Your task to perform on an android device: Open Reddit.com Image 0: 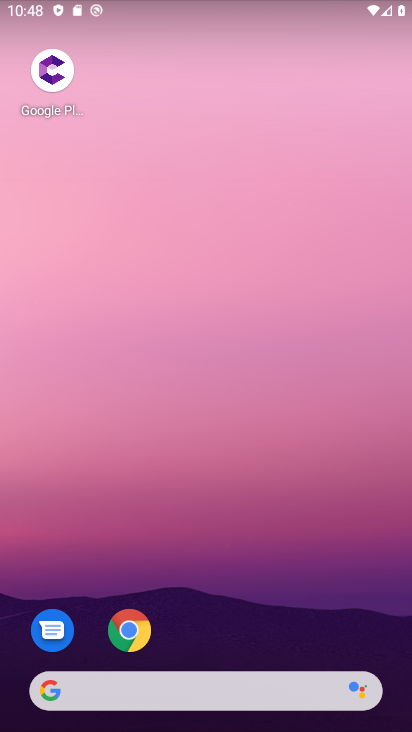
Step 0: click (124, 641)
Your task to perform on an android device: Open Reddit.com Image 1: 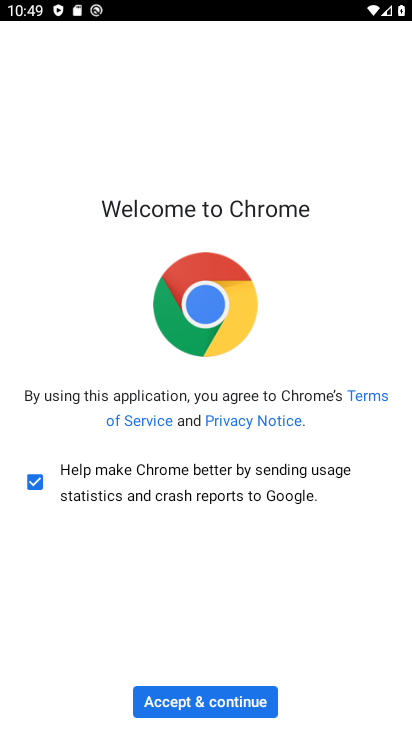
Step 1: click (184, 706)
Your task to perform on an android device: Open Reddit.com Image 2: 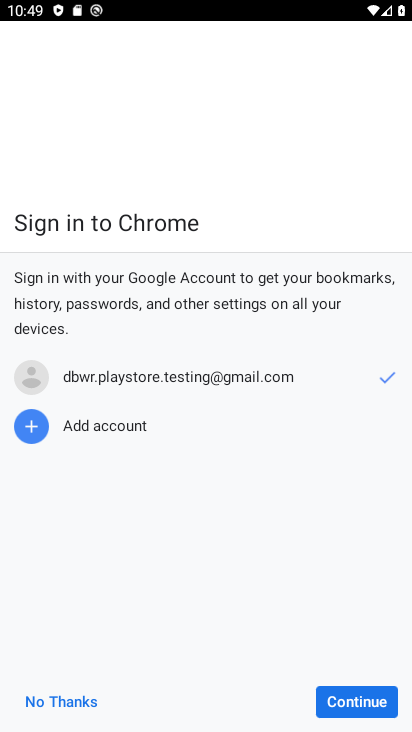
Step 2: click (64, 709)
Your task to perform on an android device: Open Reddit.com Image 3: 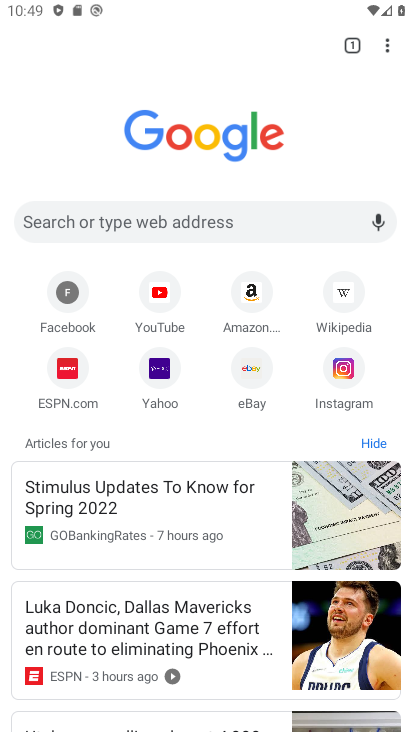
Step 3: click (194, 215)
Your task to perform on an android device: Open Reddit.com Image 4: 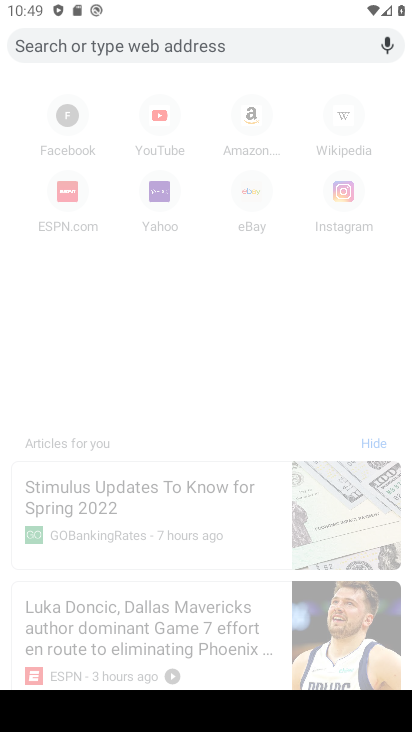
Step 4: type "Reddit.com"
Your task to perform on an android device: Open Reddit.com Image 5: 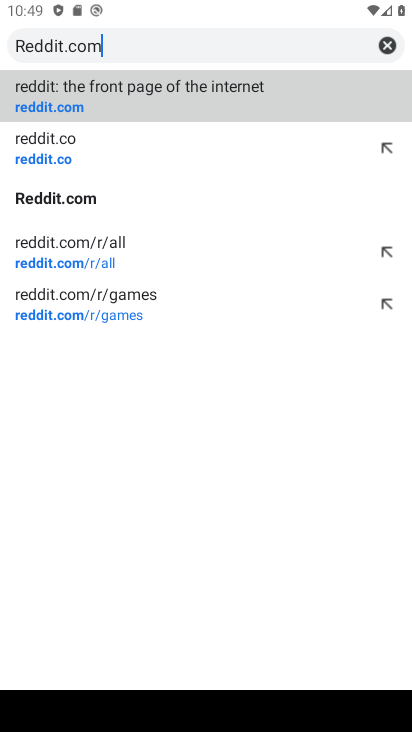
Step 5: type ""
Your task to perform on an android device: Open Reddit.com Image 6: 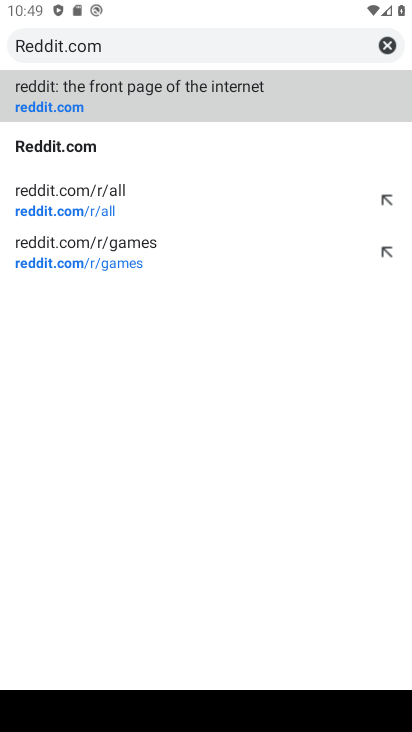
Step 6: click (57, 141)
Your task to perform on an android device: Open Reddit.com Image 7: 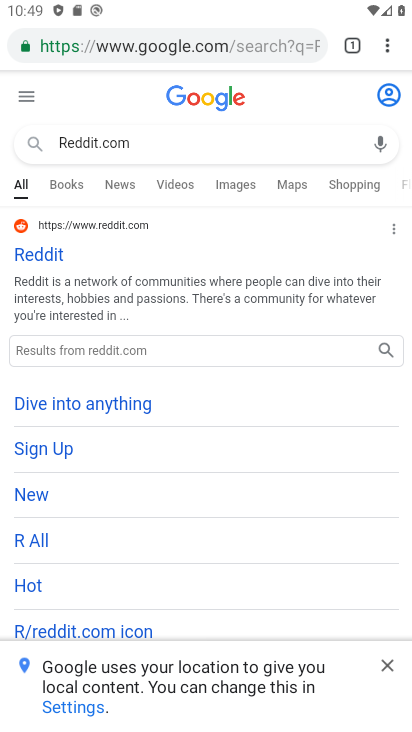
Step 7: click (27, 255)
Your task to perform on an android device: Open Reddit.com Image 8: 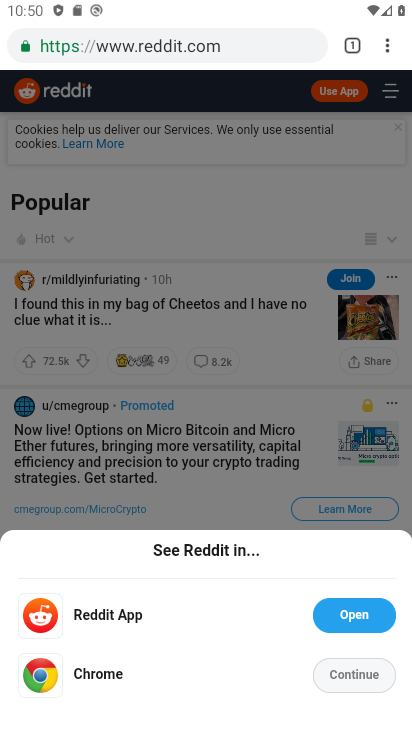
Step 8: click (168, 412)
Your task to perform on an android device: Open Reddit.com Image 9: 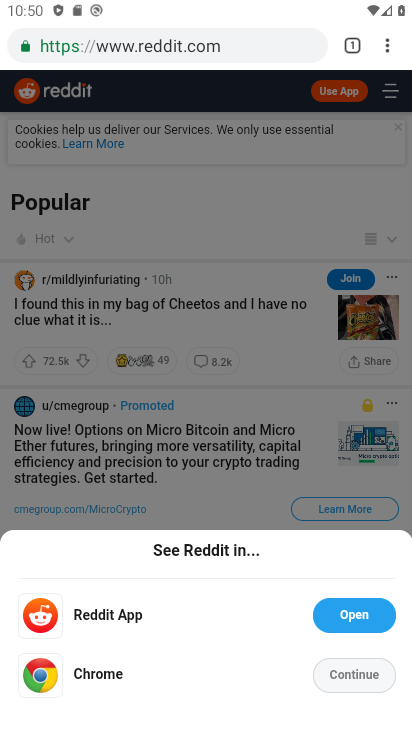
Step 9: task complete